Your task to perform on an android device: turn off sleep mode Image 0: 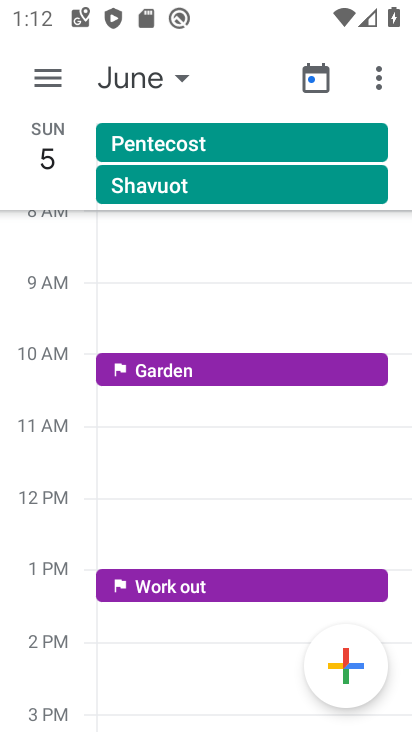
Step 0: press home button
Your task to perform on an android device: turn off sleep mode Image 1: 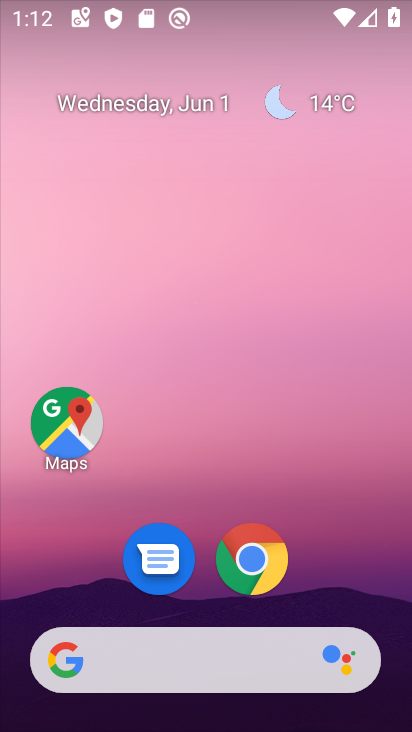
Step 1: drag from (393, 665) to (371, 143)
Your task to perform on an android device: turn off sleep mode Image 2: 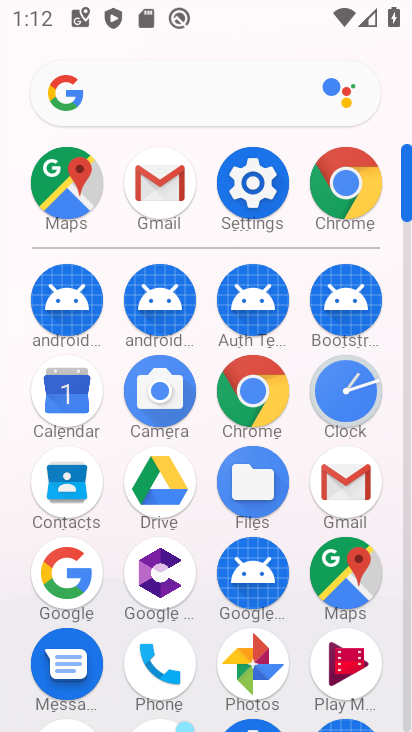
Step 2: click (240, 184)
Your task to perform on an android device: turn off sleep mode Image 3: 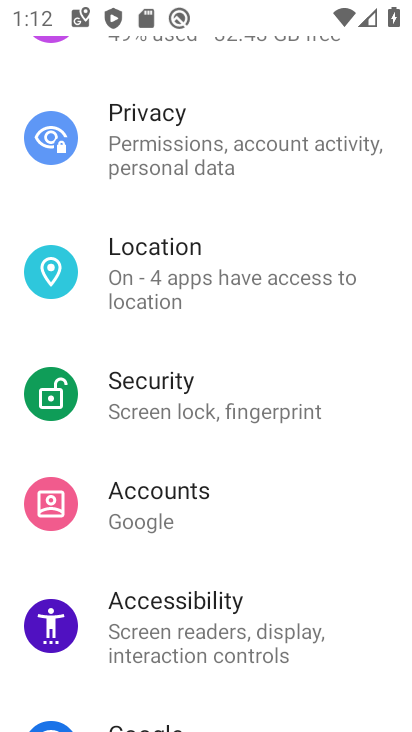
Step 3: drag from (196, 148) to (217, 575)
Your task to perform on an android device: turn off sleep mode Image 4: 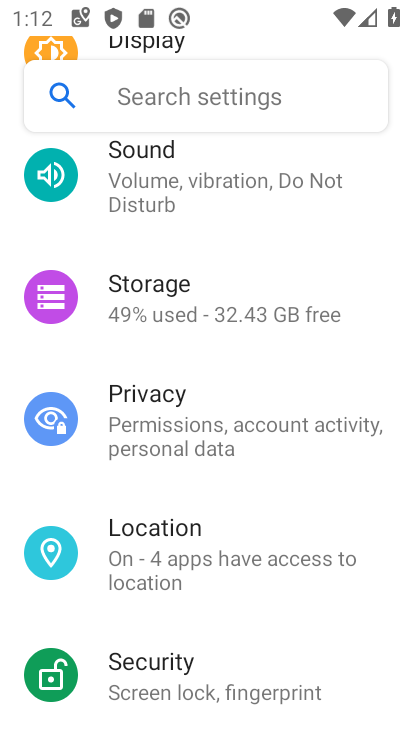
Step 4: drag from (207, 161) to (226, 530)
Your task to perform on an android device: turn off sleep mode Image 5: 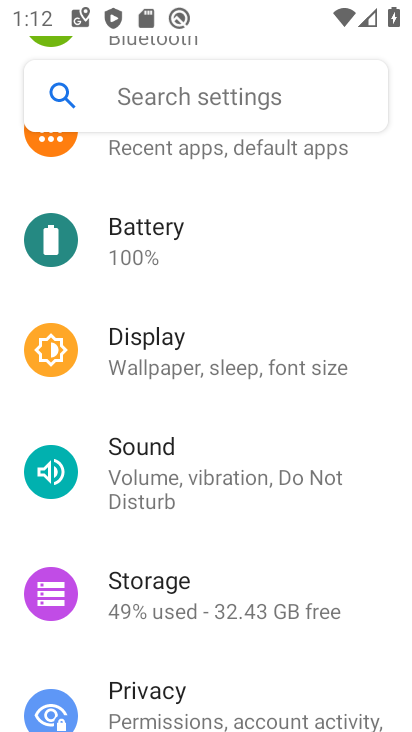
Step 5: drag from (227, 190) to (274, 498)
Your task to perform on an android device: turn off sleep mode Image 6: 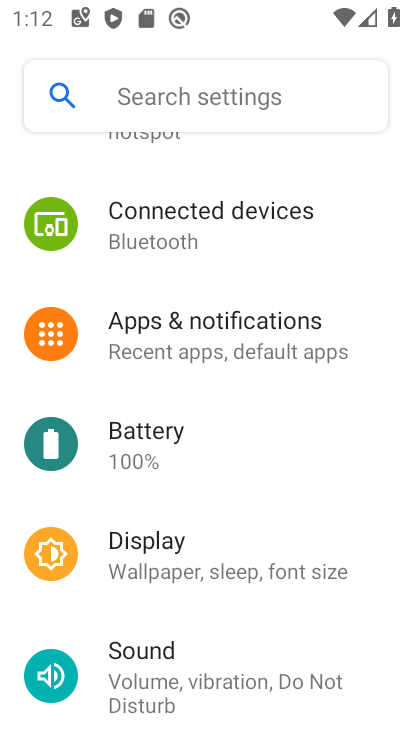
Step 6: click (132, 546)
Your task to perform on an android device: turn off sleep mode Image 7: 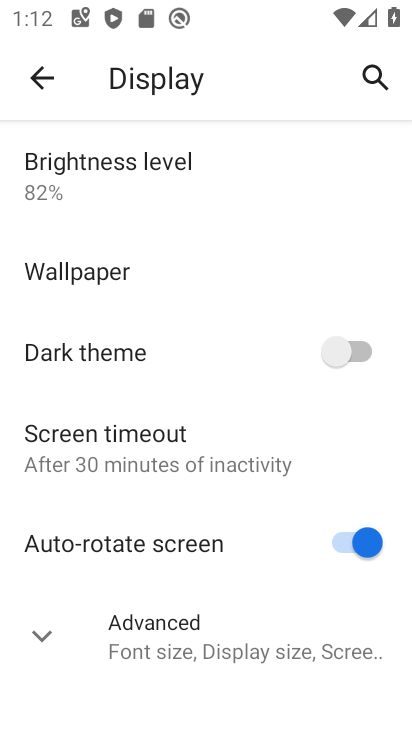
Step 7: click (87, 454)
Your task to perform on an android device: turn off sleep mode Image 8: 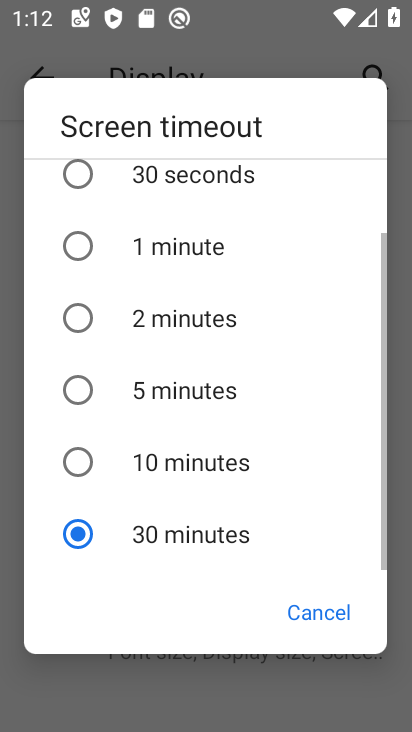
Step 8: task complete